Your task to perform on an android device: see creations saved in the google photos Image 0: 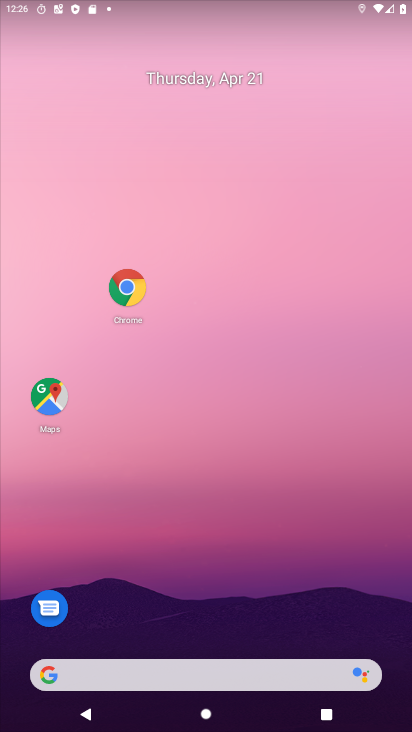
Step 0: drag from (126, 496) to (60, 103)
Your task to perform on an android device: see creations saved in the google photos Image 1: 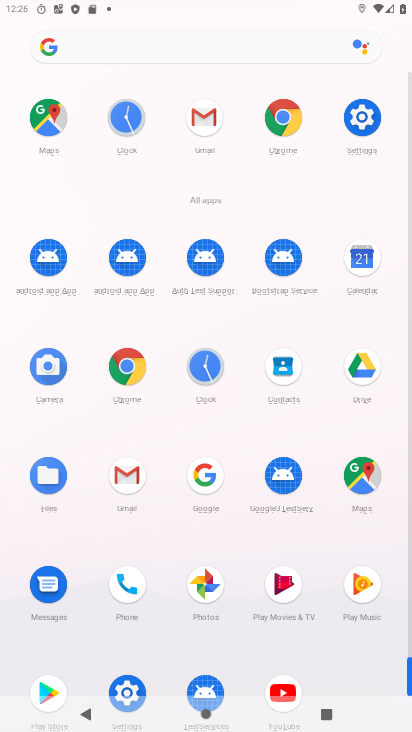
Step 1: click (219, 580)
Your task to perform on an android device: see creations saved in the google photos Image 2: 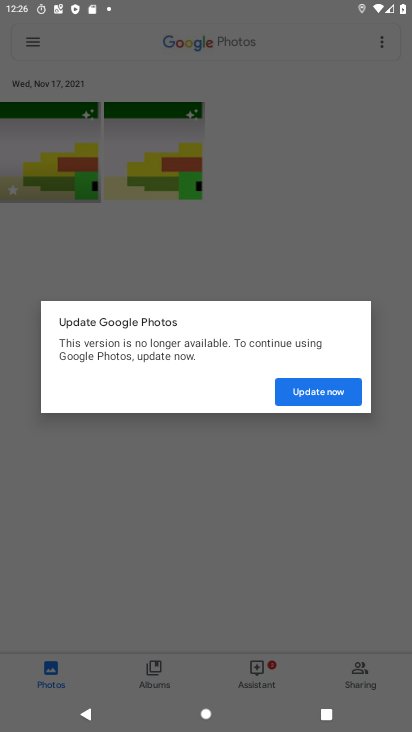
Step 2: click (300, 390)
Your task to perform on an android device: see creations saved in the google photos Image 3: 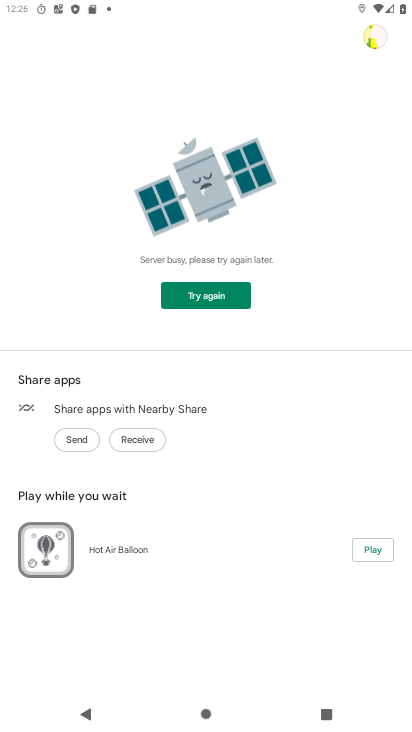
Step 3: press back button
Your task to perform on an android device: see creations saved in the google photos Image 4: 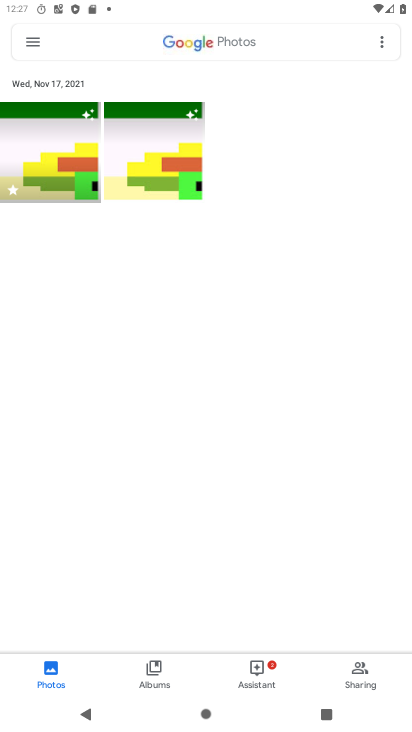
Step 4: click (128, 36)
Your task to perform on an android device: see creations saved in the google photos Image 5: 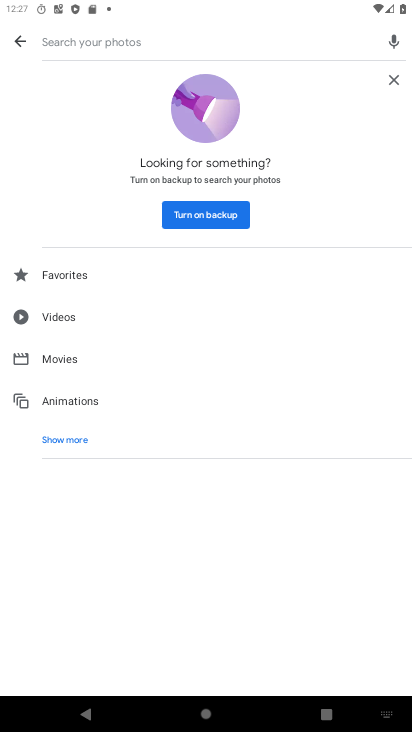
Step 5: click (45, 441)
Your task to perform on an android device: see creations saved in the google photos Image 6: 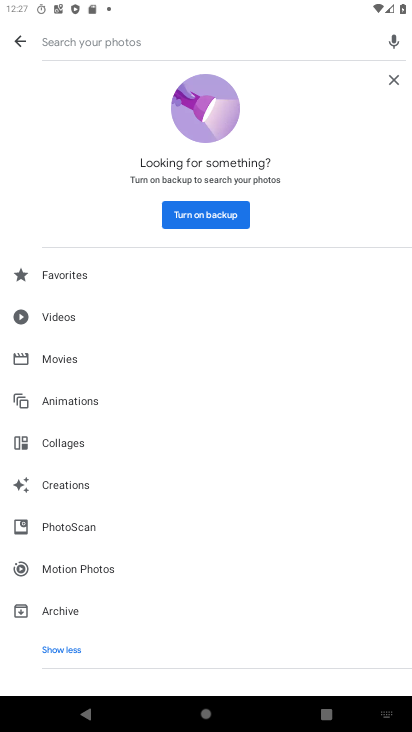
Step 6: click (62, 487)
Your task to perform on an android device: see creations saved in the google photos Image 7: 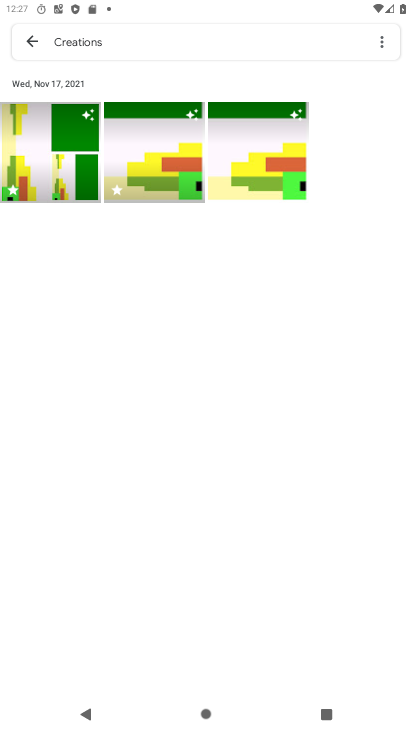
Step 7: task complete